Your task to perform on an android device: Toggle the flashlight Image 0: 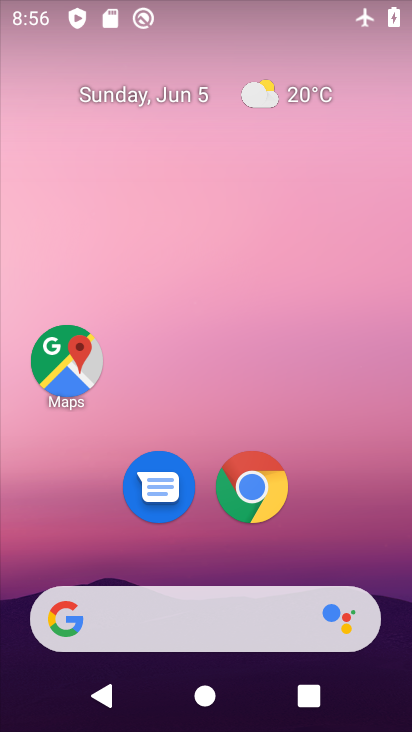
Step 0: drag from (212, 620) to (217, 432)
Your task to perform on an android device: Toggle the flashlight Image 1: 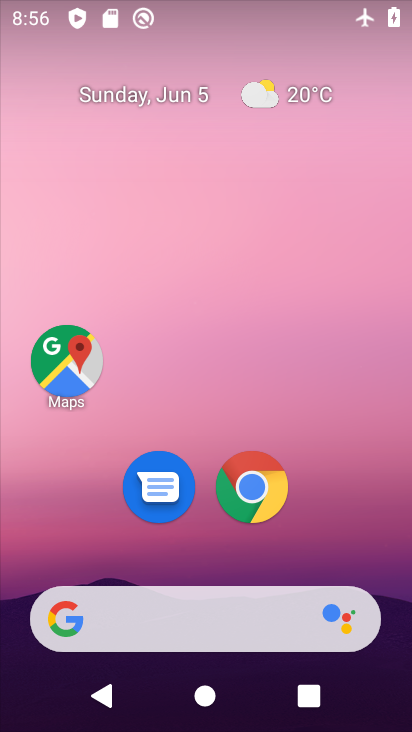
Step 1: click (238, 508)
Your task to perform on an android device: Toggle the flashlight Image 2: 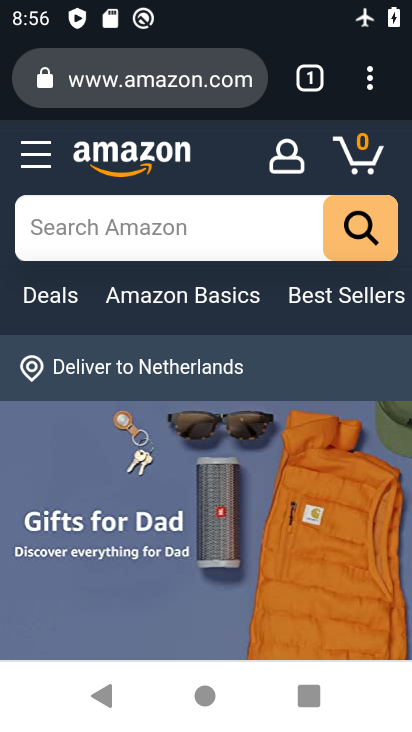
Step 2: task complete